Your task to perform on an android device: check battery use Image 0: 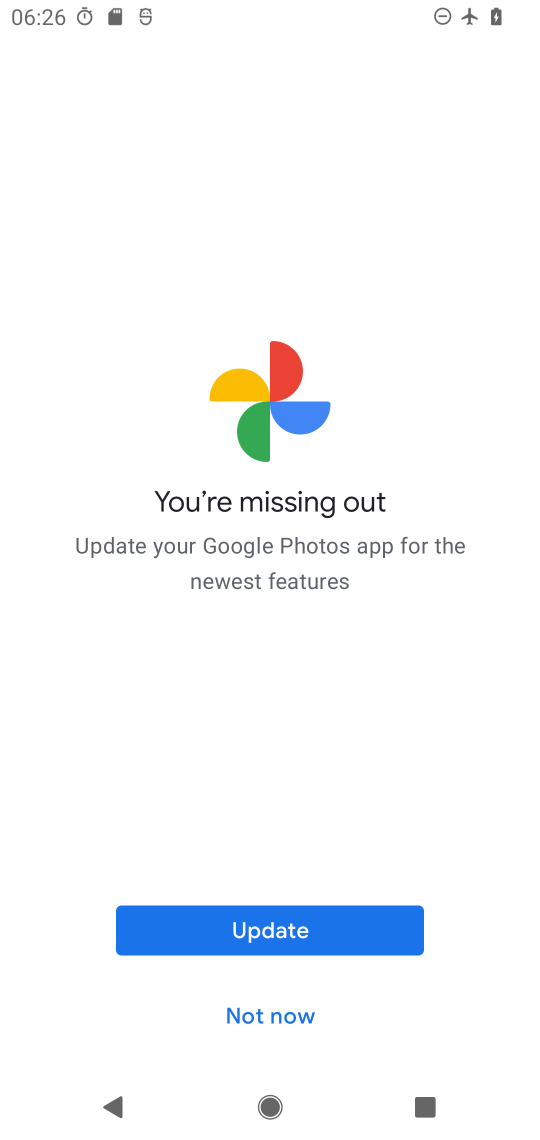
Step 0: press home button
Your task to perform on an android device: check battery use Image 1: 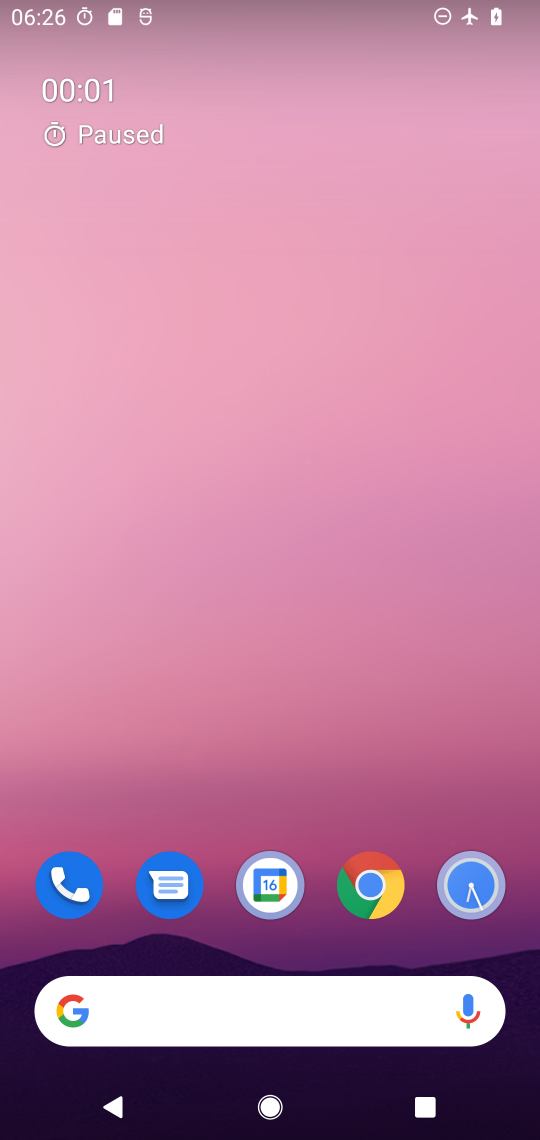
Step 1: drag from (281, 951) to (318, 34)
Your task to perform on an android device: check battery use Image 2: 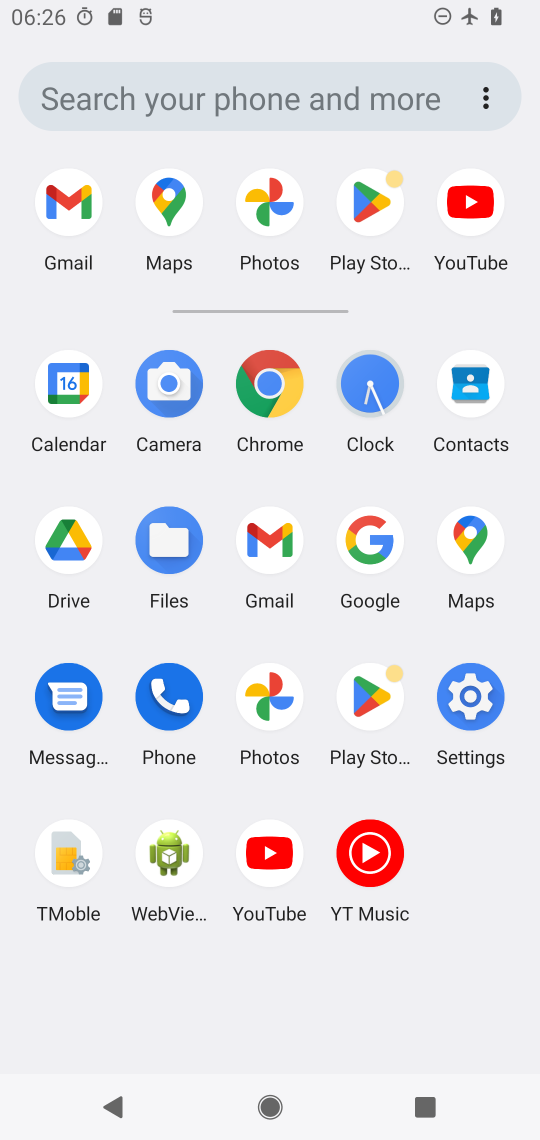
Step 2: click (470, 691)
Your task to perform on an android device: check battery use Image 3: 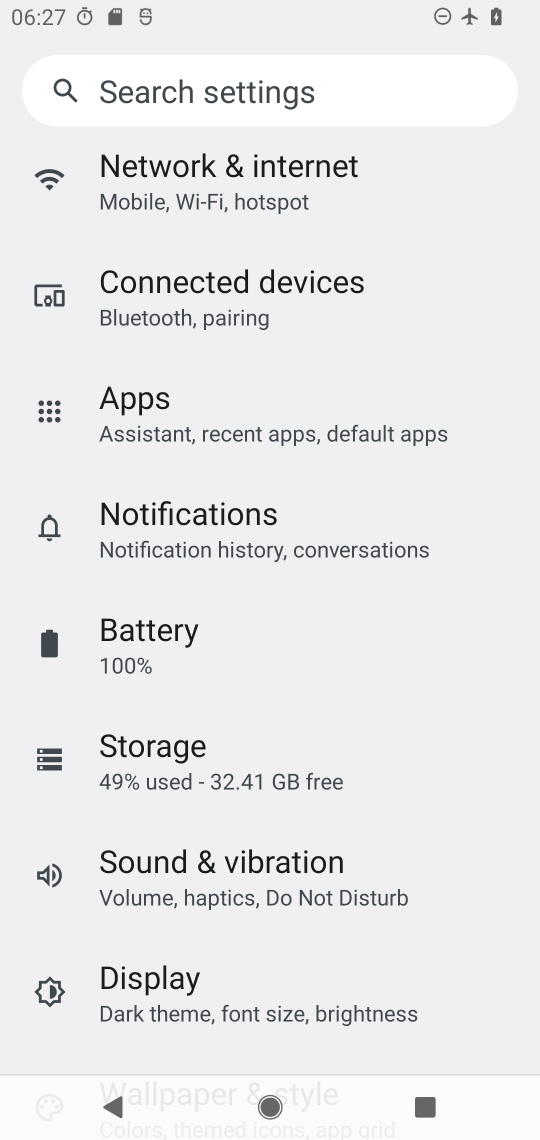
Step 3: click (234, 632)
Your task to perform on an android device: check battery use Image 4: 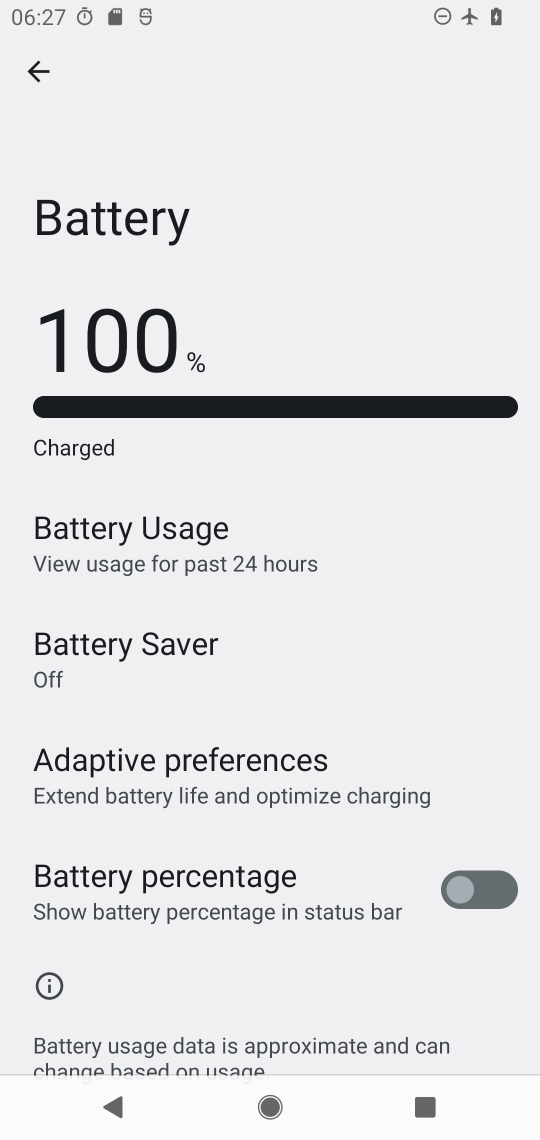
Step 4: task complete